Your task to perform on an android device: choose inbox layout in the gmail app Image 0: 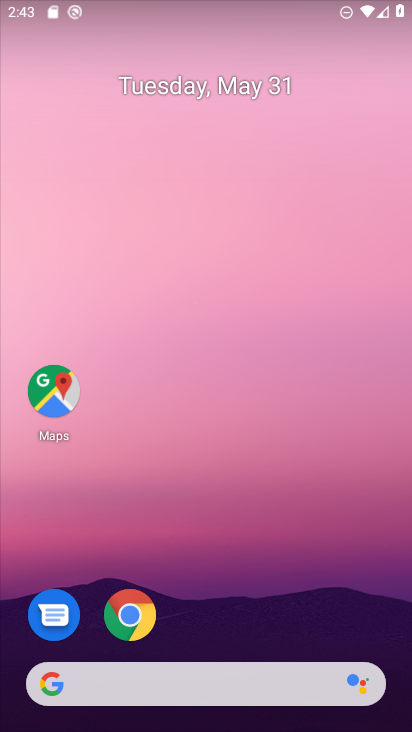
Step 0: drag from (261, 603) to (132, 10)
Your task to perform on an android device: choose inbox layout in the gmail app Image 1: 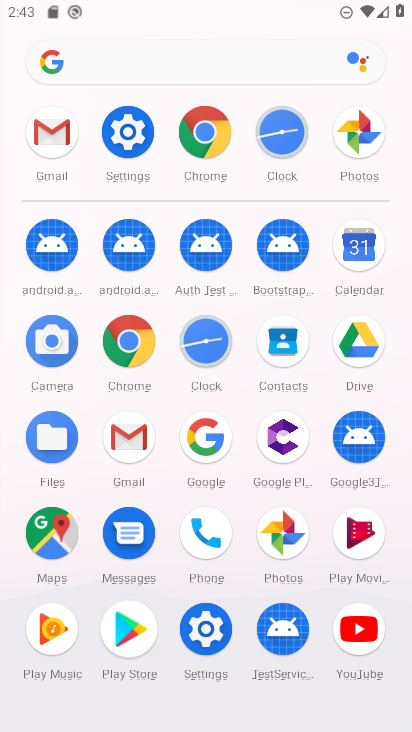
Step 1: click (128, 456)
Your task to perform on an android device: choose inbox layout in the gmail app Image 2: 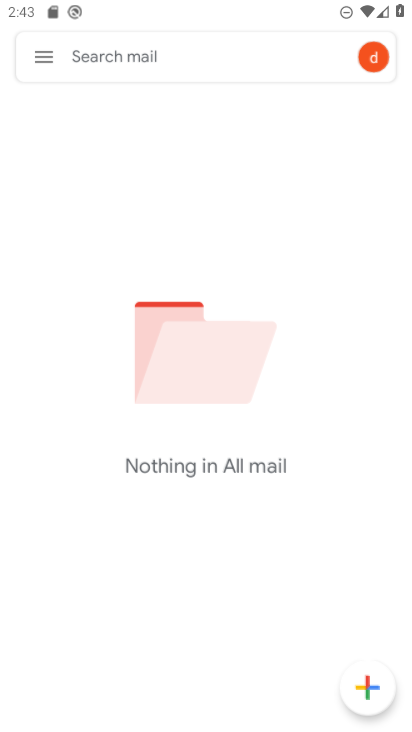
Step 2: click (133, 432)
Your task to perform on an android device: choose inbox layout in the gmail app Image 3: 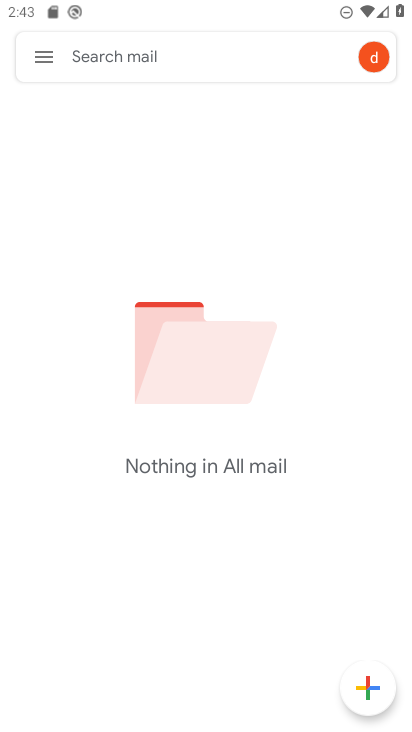
Step 3: click (46, 62)
Your task to perform on an android device: choose inbox layout in the gmail app Image 4: 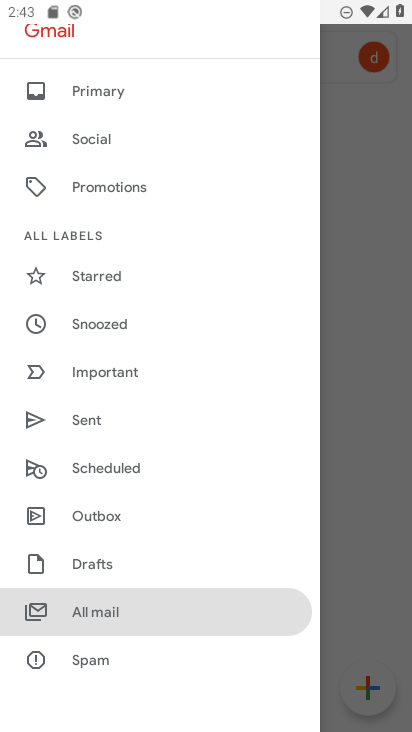
Step 4: drag from (152, 532) to (152, 255)
Your task to perform on an android device: choose inbox layout in the gmail app Image 5: 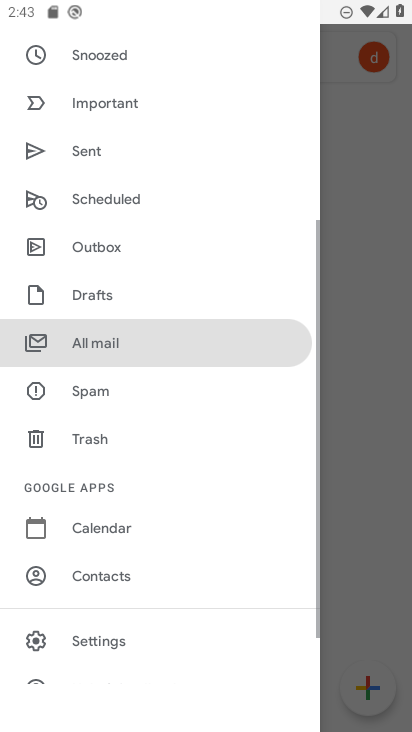
Step 5: drag from (173, 427) to (184, 87)
Your task to perform on an android device: choose inbox layout in the gmail app Image 6: 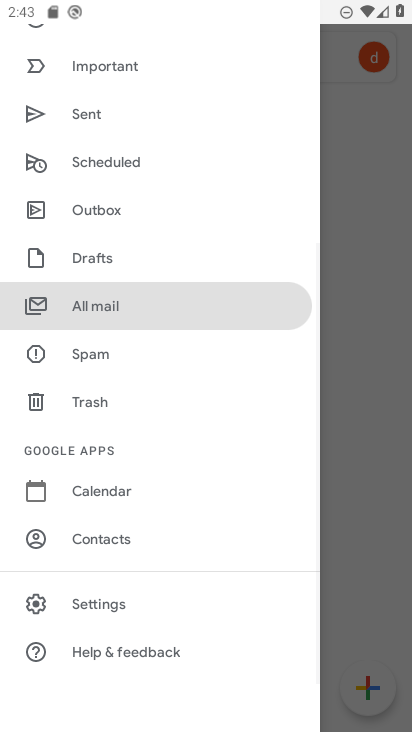
Step 6: click (98, 607)
Your task to perform on an android device: choose inbox layout in the gmail app Image 7: 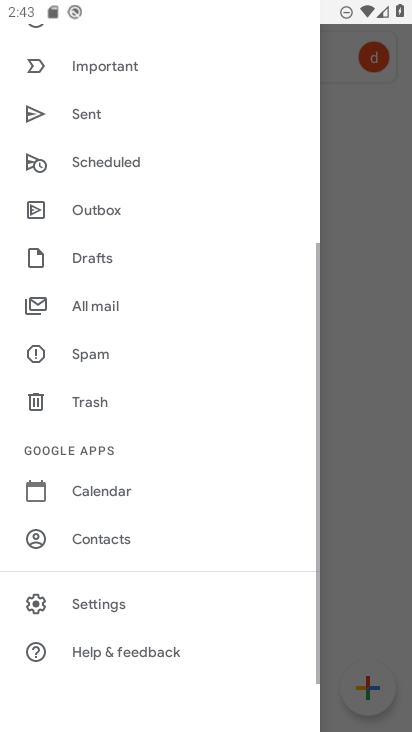
Step 7: click (99, 606)
Your task to perform on an android device: choose inbox layout in the gmail app Image 8: 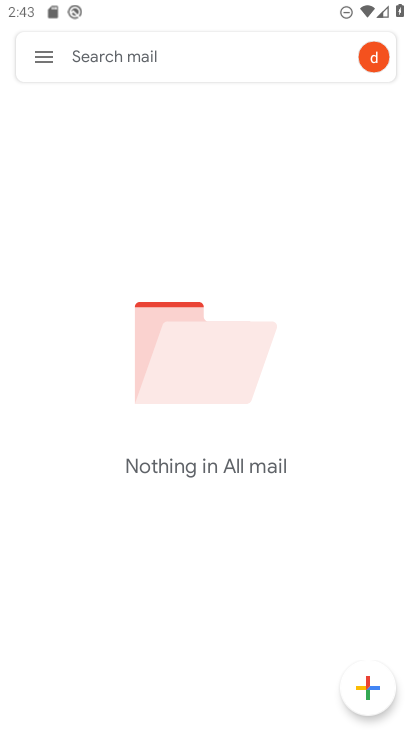
Step 8: click (102, 603)
Your task to perform on an android device: choose inbox layout in the gmail app Image 9: 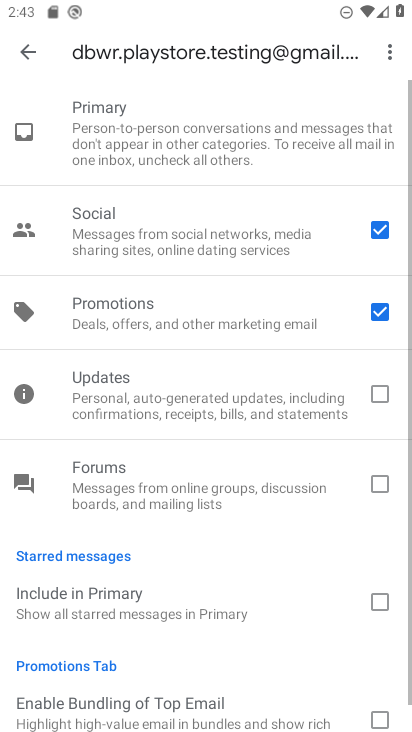
Step 9: click (86, 110)
Your task to perform on an android device: choose inbox layout in the gmail app Image 10: 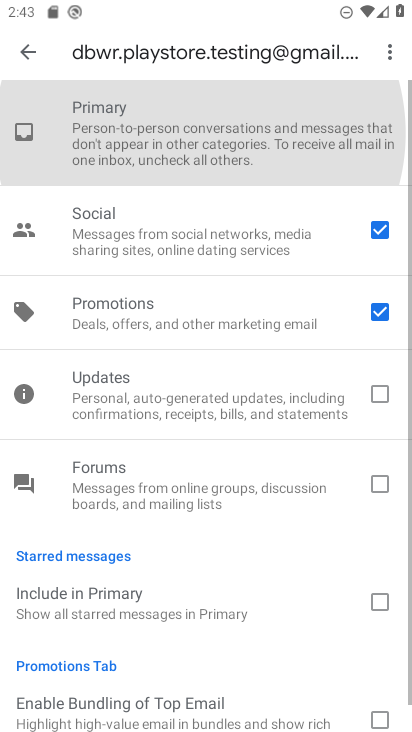
Step 10: click (87, 120)
Your task to perform on an android device: choose inbox layout in the gmail app Image 11: 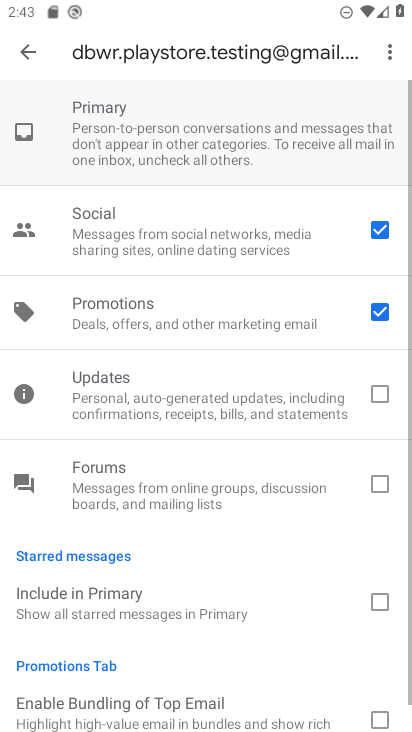
Step 11: click (88, 120)
Your task to perform on an android device: choose inbox layout in the gmail app Image 12: 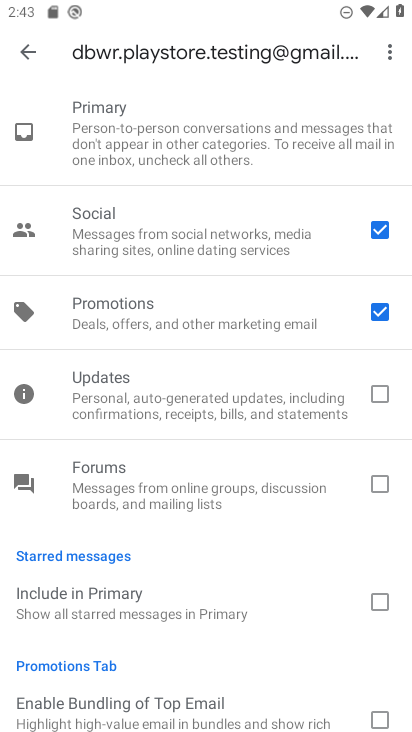
Step 12: click (136, 131)
Your task to perform on an android device: choose inbox layout in the gmail app Image 13: 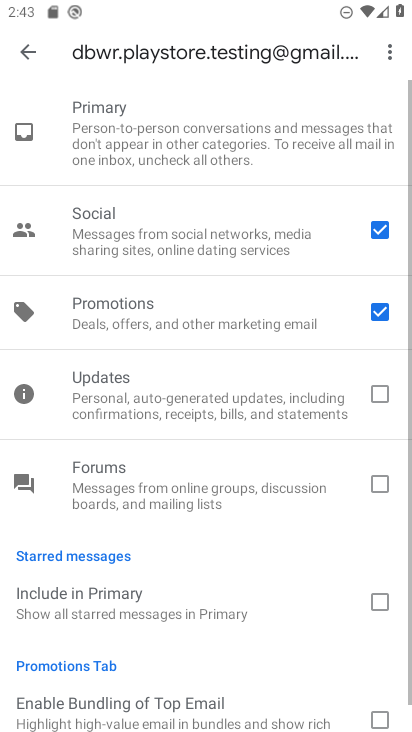
Step 13: click (24, 56)
Your task to perform on an android device: choose inbox layout in the gmail app Image 14: 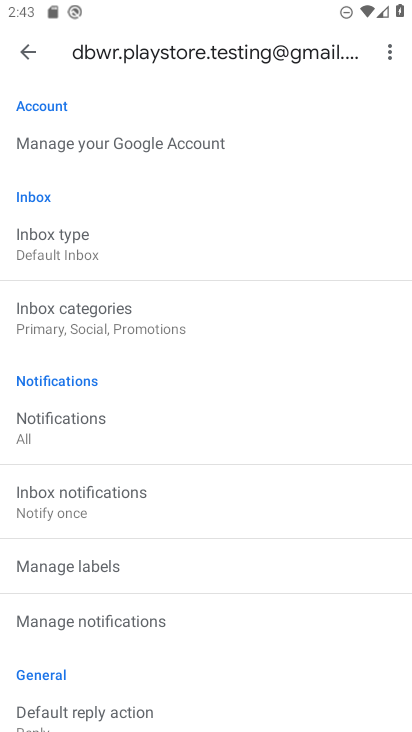
Step 14: click (42, 243)
Your task to perform on an android device: choose inbox layout in the gmail app Image 15: 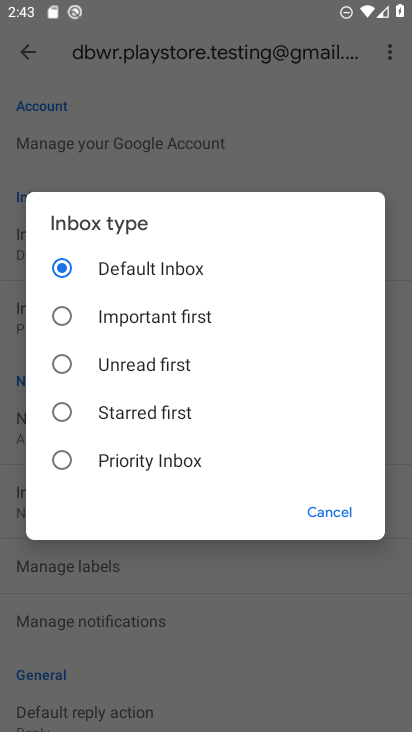
Step 15: click (323, 509)
Your task to perform on an android device: choose inbox layout in the gmail app Image 16: 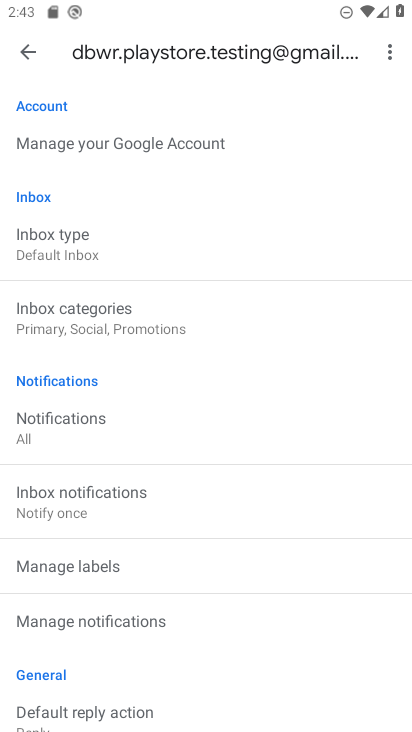
Step 16: task complete